Your task to perform on an android device: Open privacy settings Image 0: 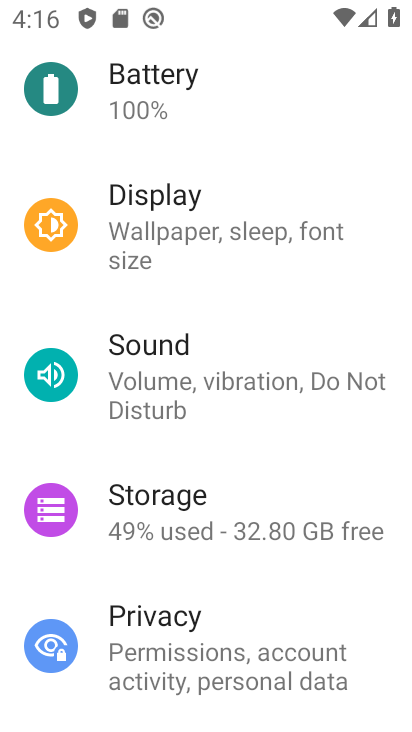
Step 0: click (232, 669)
Your task to perform on an android device: Open privacy settings Image 1: 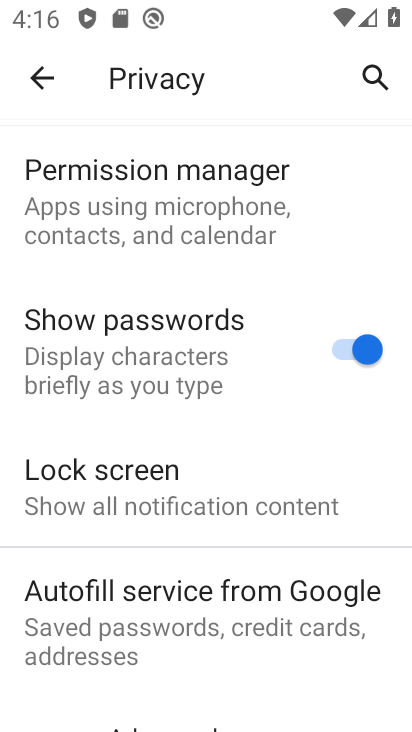
Step 1: task complete